Your task to perform on an android device: turn smart compose on in the gmail app Image 0: 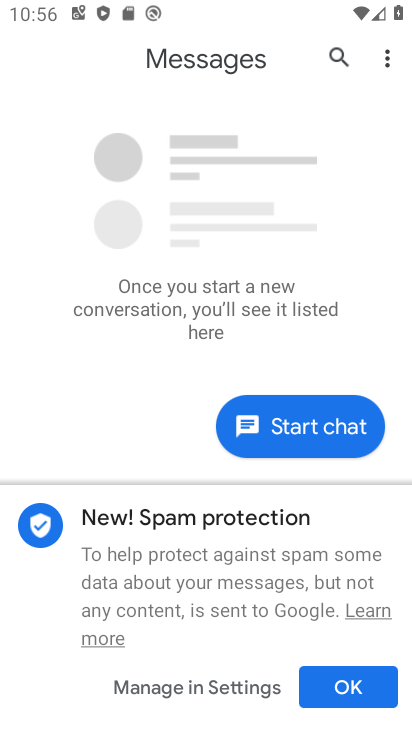
Step 0: press home button
Your task to perform on an android device: turn smart compose on in the gmail app Image 1: 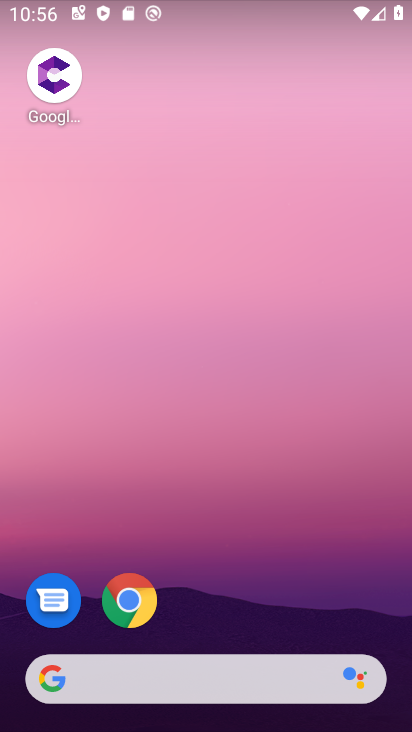
Step 1: drag from (222, 626) to (214, 145)
Your task to perform on an android device: turn smart compose on in the gmail app Image 2: 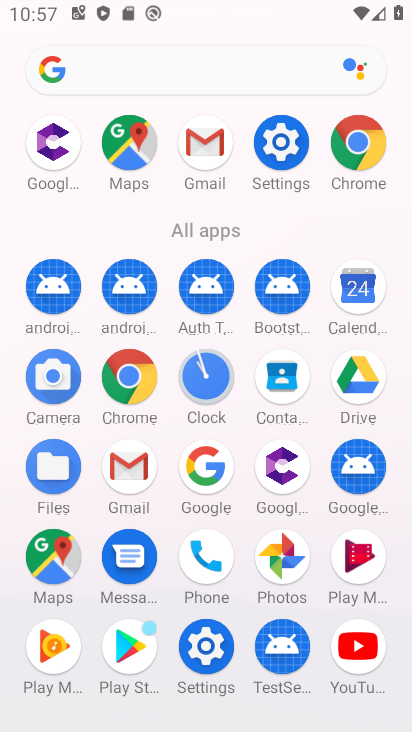
Step 2: click (129, 469)
Your task to perform on an android device: turn smart compose on in the gmail app Image 3: 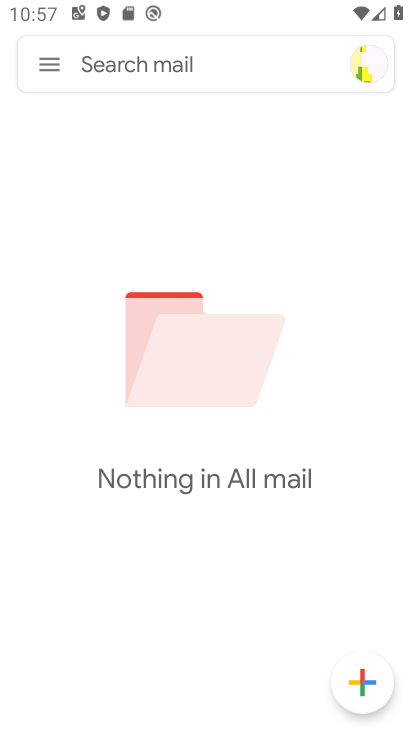
Step 3: click (49, 54)
Your task to perform on an android device: turn smart compose on in the gmail app Image 4: 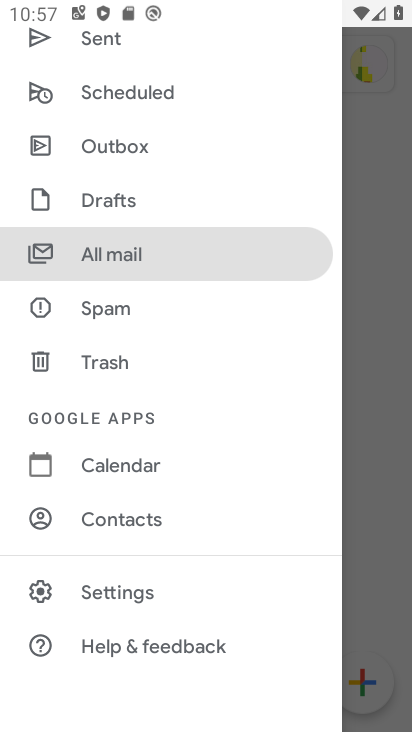
Step 4: click (121, 570)
Your task to perform on an android device: turn smart compose on in the gmail app Image 5: 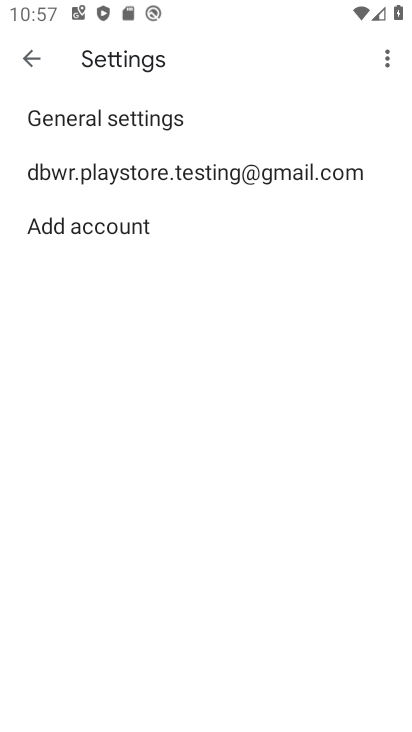
Step 5: click (217, 171)
Your task to perform on an android device: turn smart compose on in the gmail app Image 6: 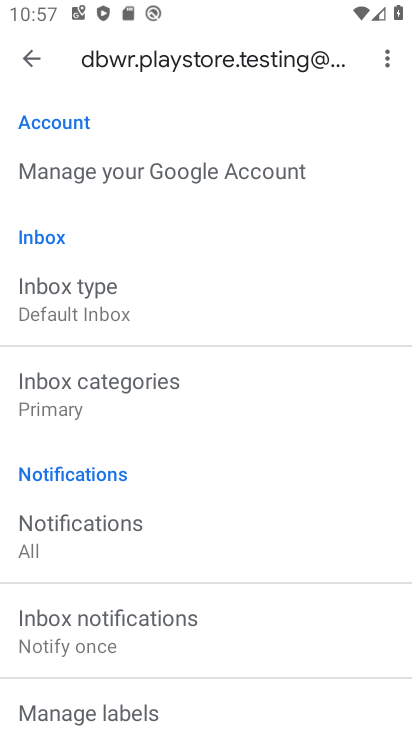
Step 6: task complete